Your task to perform on an android device: turn off javascript in the chrome app Image 0: 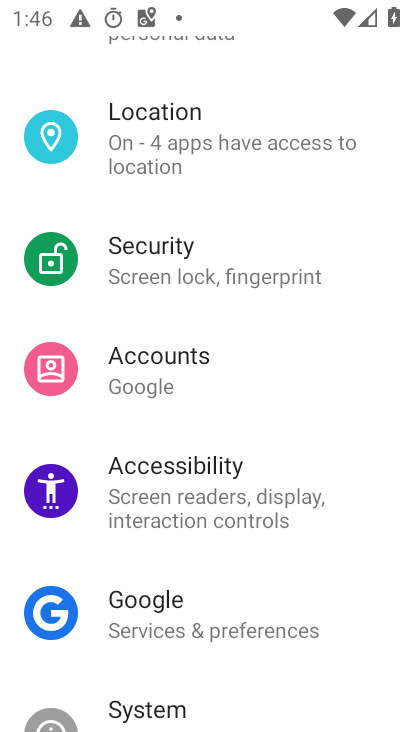
Step 0: press home button
Your task to perform on an android device: turn off javascript in the chrome app Image 1: 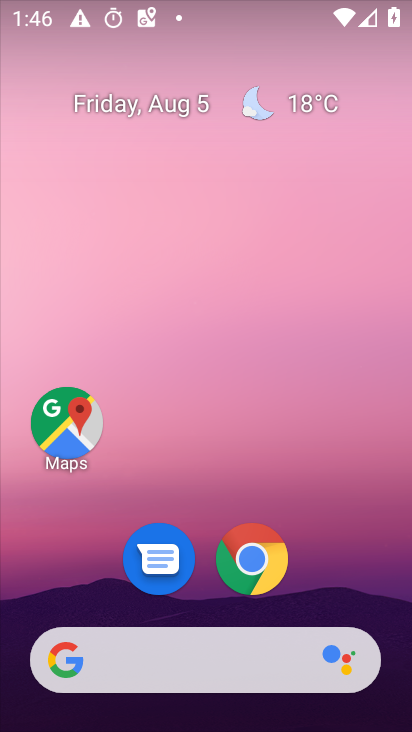
Step 1: click (268, 572)
Your task to perform on an android device: turn off javascript in the chrome app Image 2: 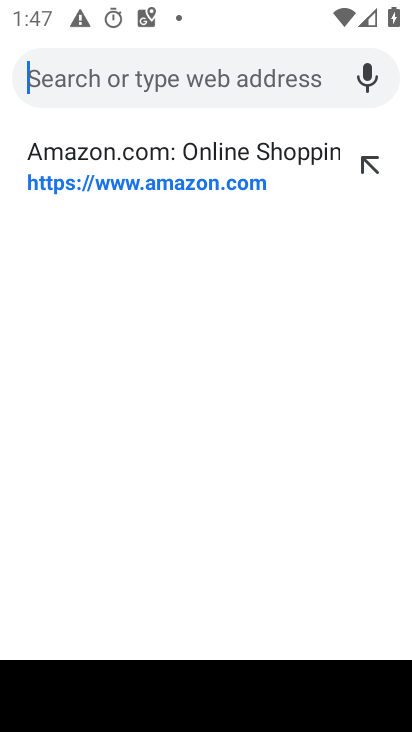
Step 2: click (282, 572)
Your task to perform on an android device: turn off javascript in the chrome app Image 3: 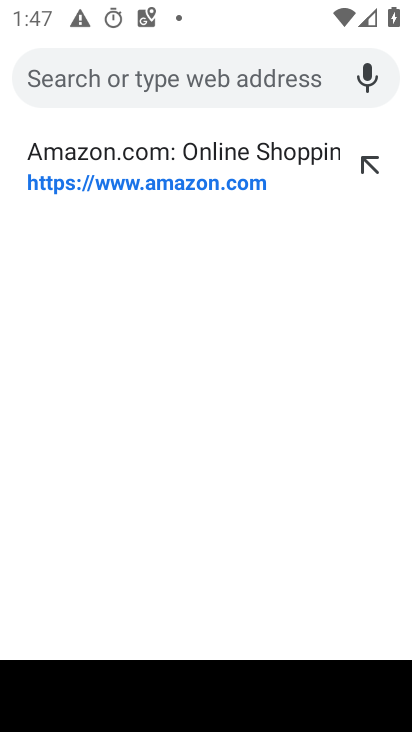
Step 3: task complete